Your task to perform on an android device: change your default location settings in chrome Image 0: 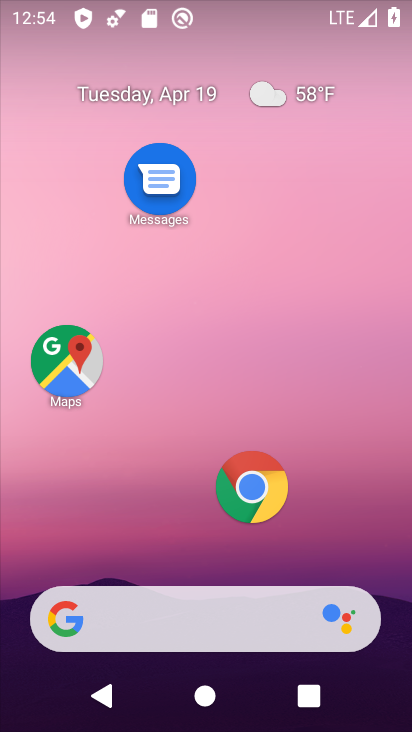
Step 0: click (261, 486)
Your task to perform on an android device: change your default location settings in chrome Image 1: 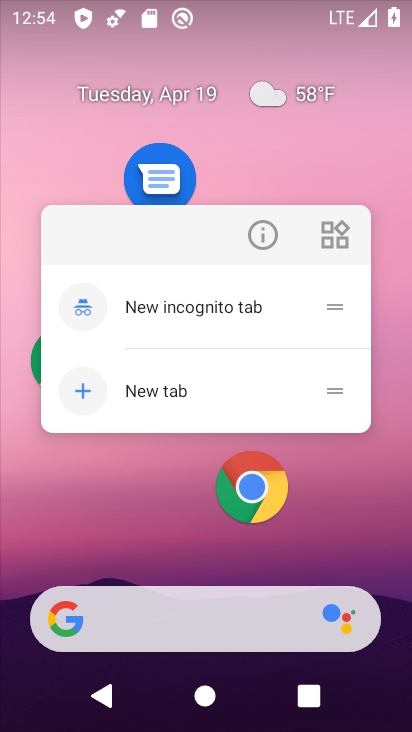
Step 1: click (260, 485)
Your task to perform on an android device: change your default location settings in chrome Image 2: 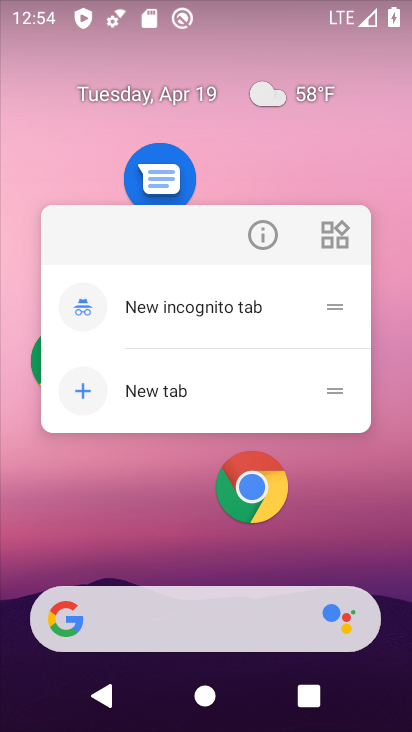
Step 2: drag from (214, 586) to (223, 164)
Your task to perform on an android device: change your default location settings in chrome Image 3: 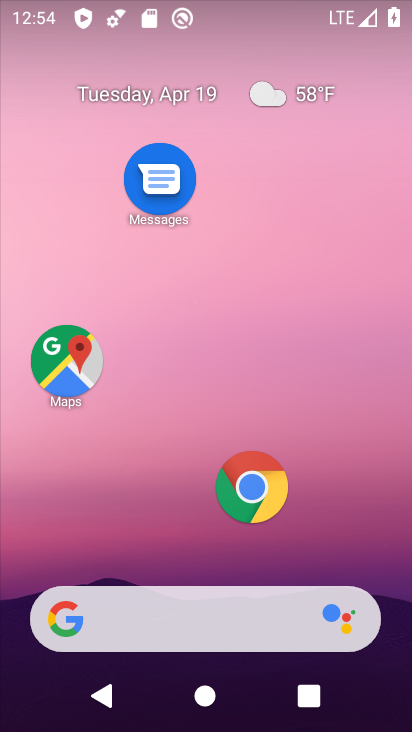
Step 3: drag from (209, 454) to (247, 206)
Your task to perform on an android device: change your default location settings in chrome Image 4: 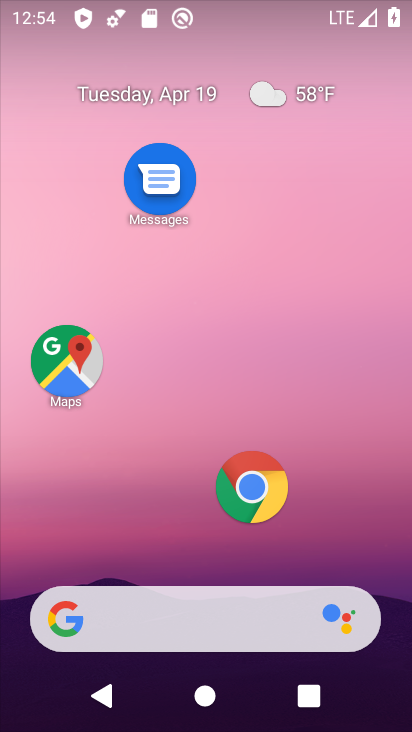
Step 4: drag from (186, 584) to (349, 114)
Your task to perform on an android device: change your default location settings in chrome Image 5: 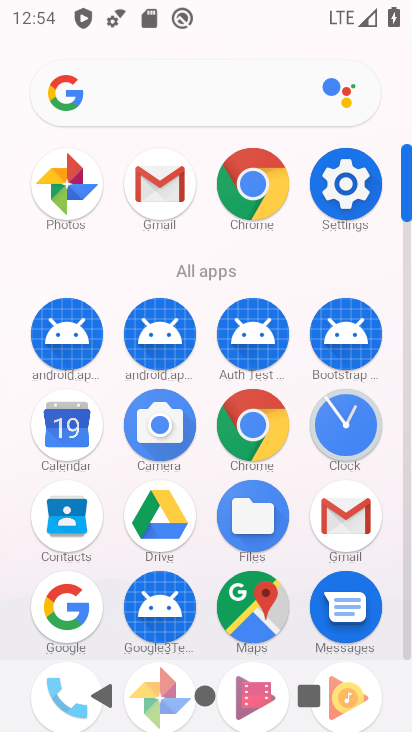
Step 5: drag from (206, 599) to (247, 308)
Your task to perform on an android device: change your default location settings in chrome Image 6: 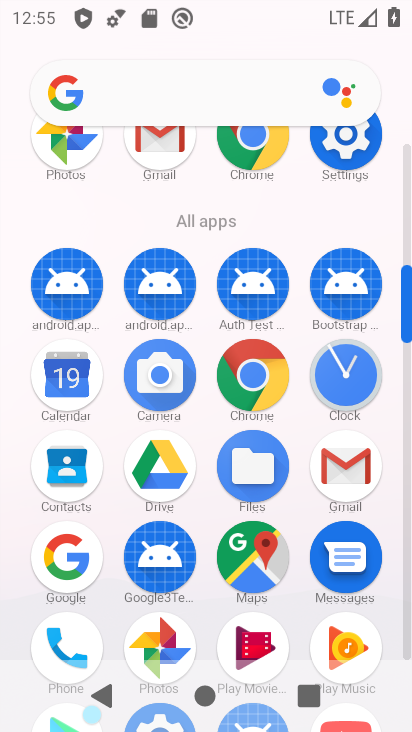
Step 6: click (253, 375)
Your task to perform on an android device: change your default location settings in chrome Image 7: 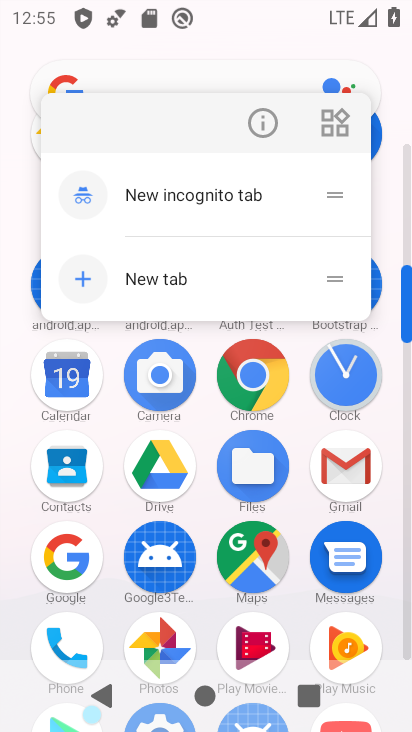
Step 7: click (245, 385)
Your task to perform on an android device: change your default location settings in chrome Image 8: 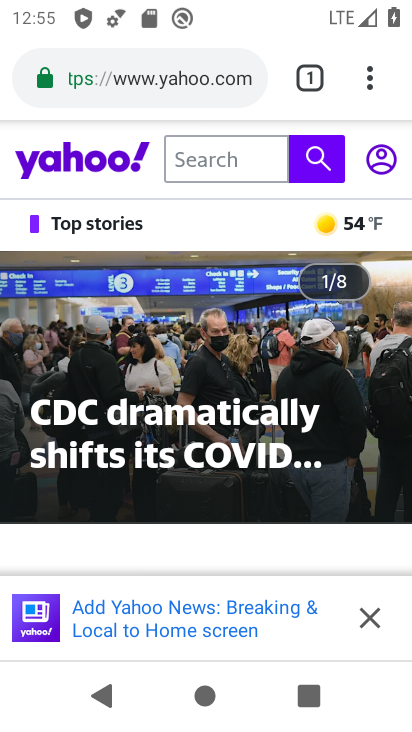
Step 8: click (367, 78)
Your task to perform on an android device: change your default location settings in chrome Image 9: 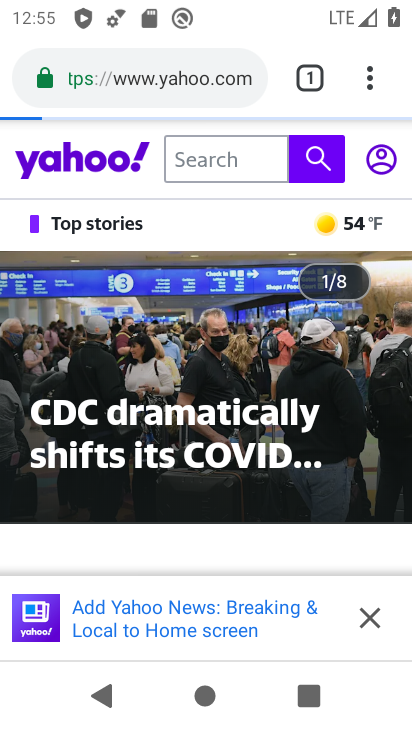
Step 9: click (367, 78)
Your task to perform on an android device: change your default location settings in chrome Image 10: 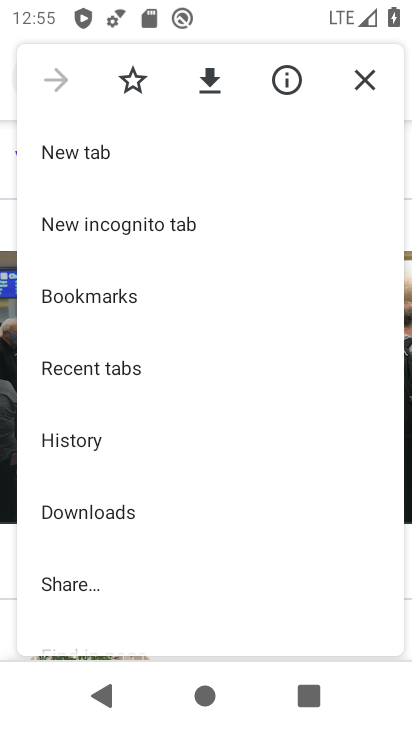
Step 10: drag from (112, 595) to (173, 268)
Your task to perform on an android device: change your default location settings in chrome Image 11: 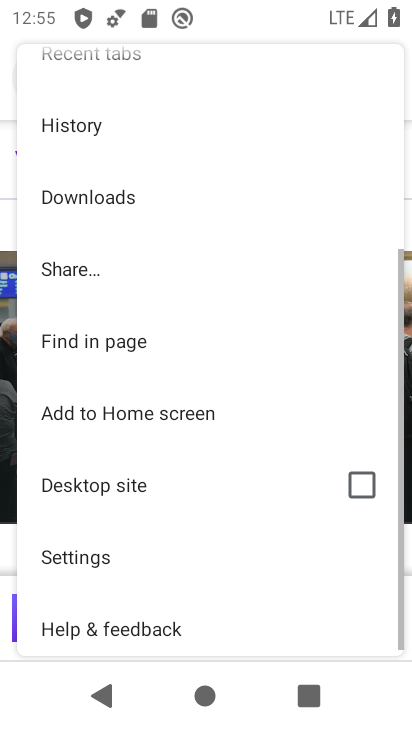
Step 11: click (96, 558)
Your task to perform on an android device: change your default location settings in chrome Image 12: 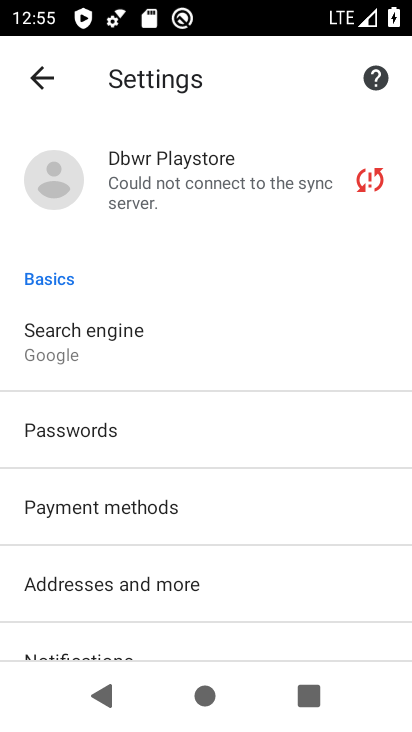
Step 12: drag from (113, 599) to (199, 234)
Your task to perform on an android device: change your default location settings in chrome Image 13: 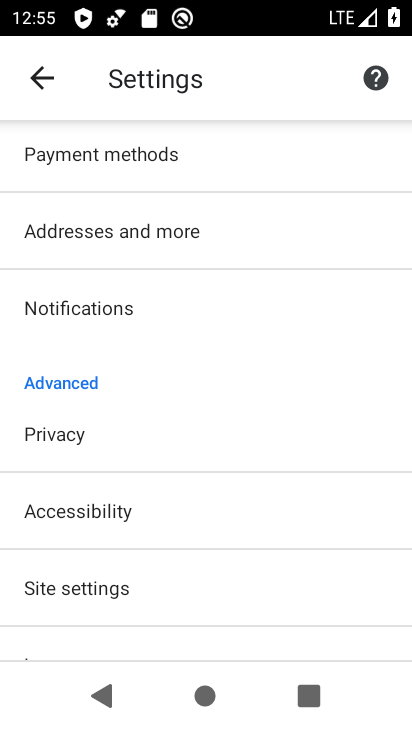
Step 13: click (71, 591)
Your task to perform on an android device: change your default location settings in chrome Image 14: 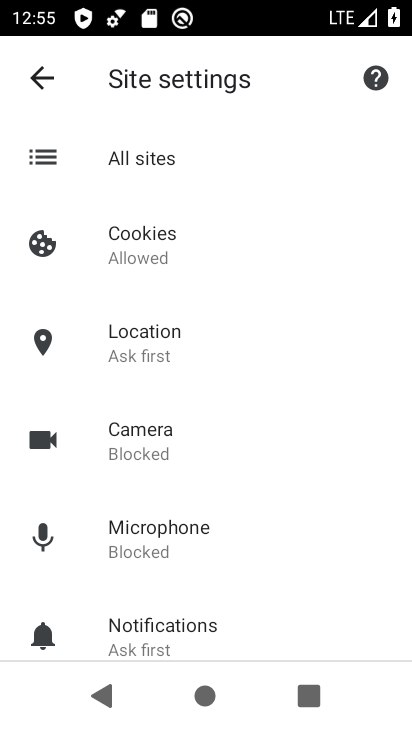
Step 14: click (120, 348)
Your task to perform on an android device: change your default location settings in chrome Image 15: 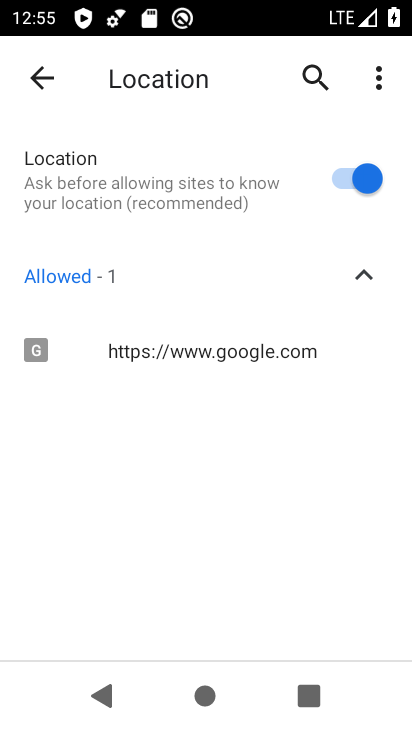
Step 15: click (330, 180)
Your task to perform on an android device: change your default location settings in chrome Image 16: 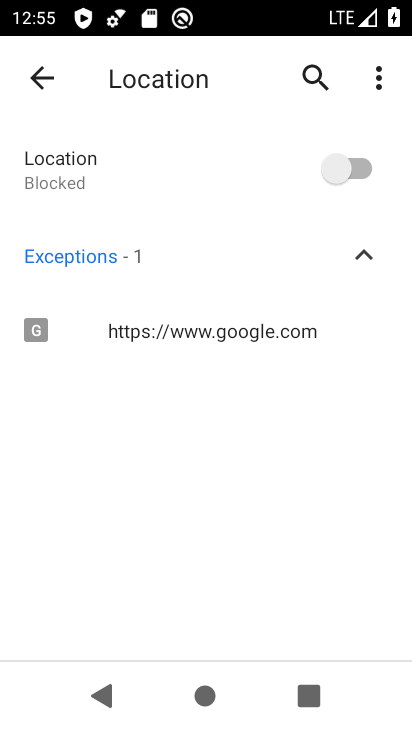
Step 16: task complete